Your task to perform on an android device: change notification settings in the gmail app Image 0: 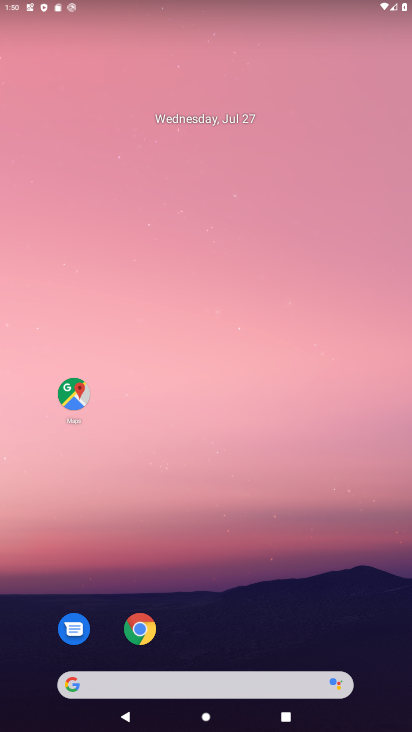
Step 0: drag from (257, 666) to (191, 266)
Your task to perform on an android device: change notification settings in the gmail app Image 1: 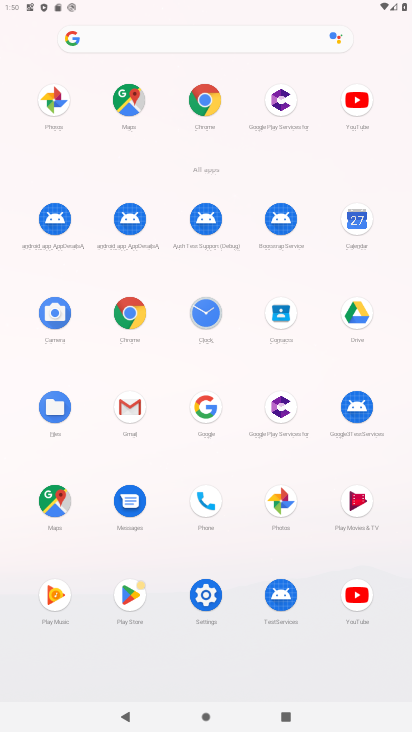
Step 1: click (139, 411)
Your task to perform on an android device: change notification settings in the gmail app Image 2: 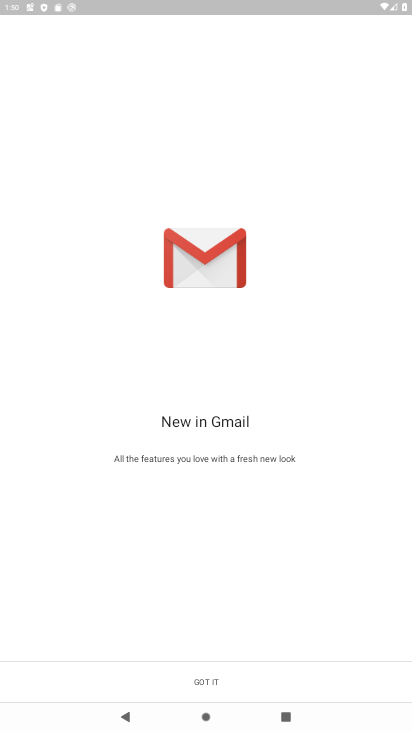
Step 2: click (210, 681)
Your task to perform on an android device: change notification settings in the gmail app Image 3: 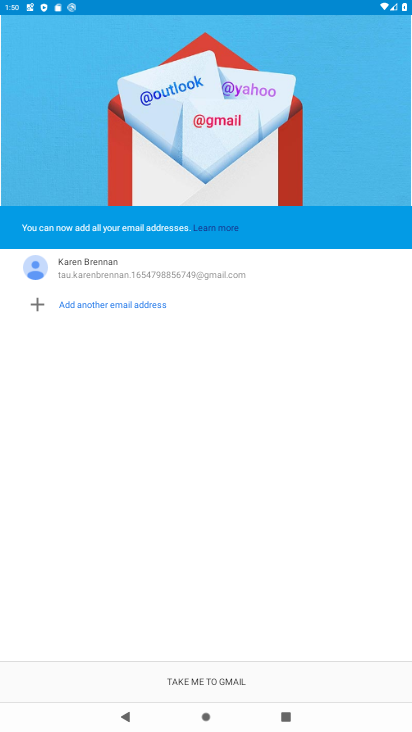
Step 3: click (209, 680)
Your task to perform on an android device: change notification settings in the gmail app Image 4: 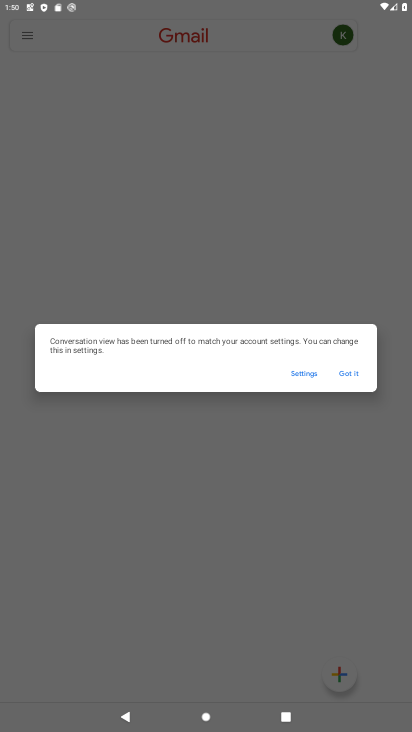
Step 4: click (339, 373)
Your task to perform on an android device: change notification settings in the gmail app Image 5: 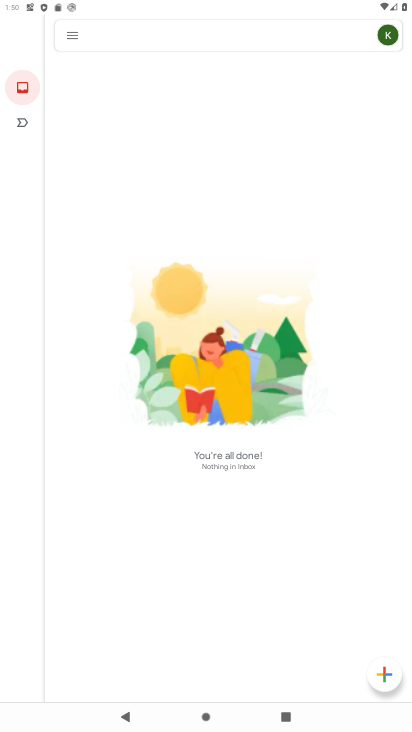
Step 5: click (65, 34)
Your task to perform on an android device: change notification settings in the gmail app Image 6: 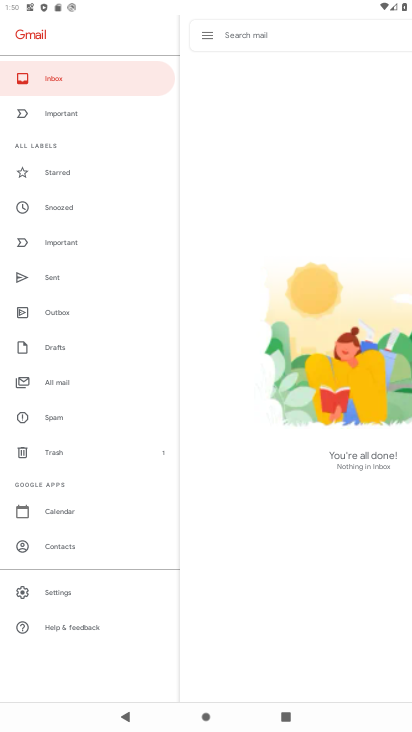
Step 6: click (58, 589)
Your task to perform on an android device: change notification settings in the gmail app Image 7: 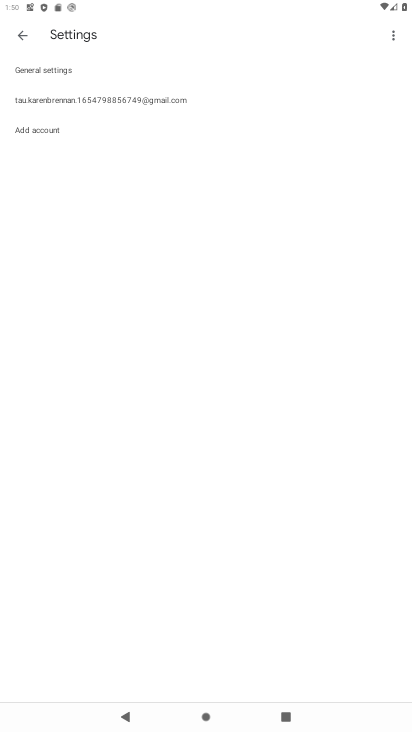
Step 7: click (96, 96)
Your task to perform on an android device: change notification settings in the gmail app Image 8: 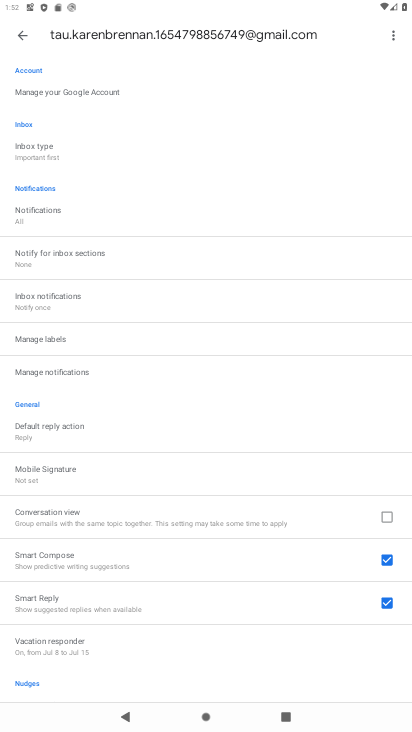
Step 8: click (26, 364)
Your task to perform on an android device: change notification settings in the gmail app Image 9: 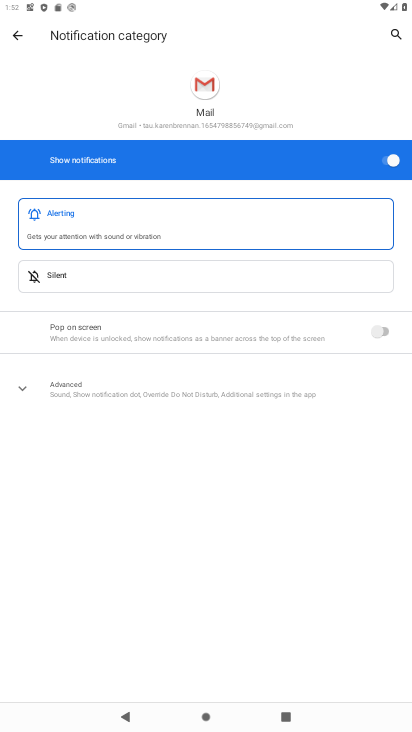
Step 9: click (381, 158)
Your task to perform on an android device: change notification settings in the gmail app Image 10: 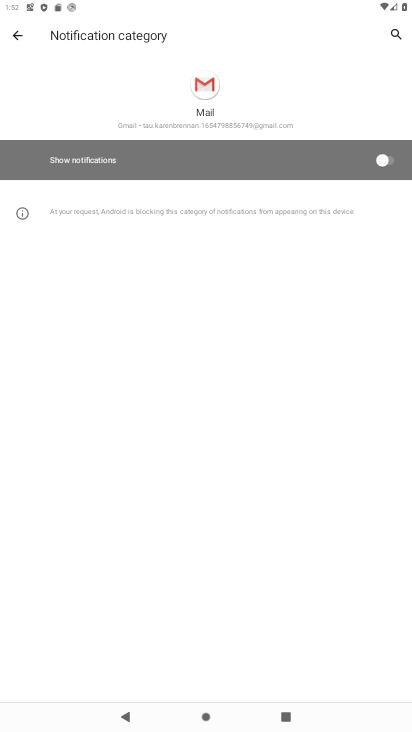
Step 10: task complete